Your task to perform on an android device: What's the weather going to be tomorrow? Image 0: 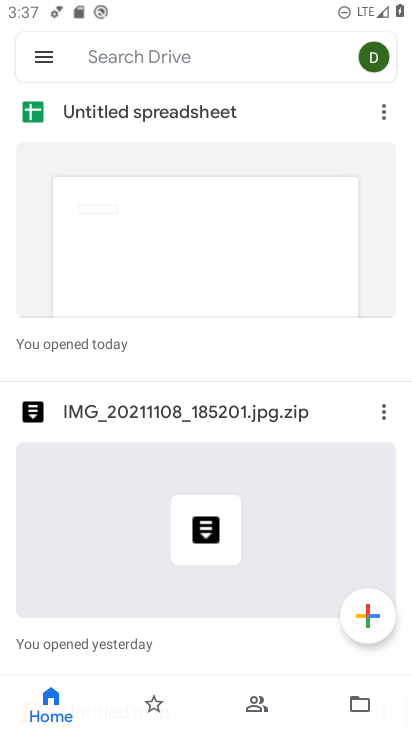
Step 0: press home button
Your task to perform on an android device: What's the weather going to be tomorrow? Image 1: 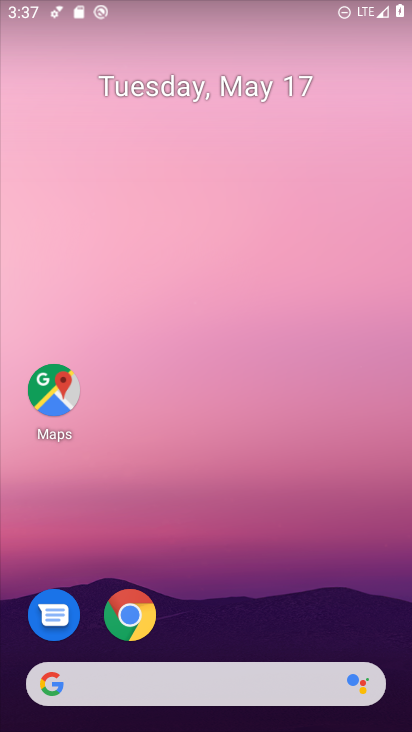
Step 1: drag from (250, 720) to (251, 263)
Your task to perform on an android device: What's the weather going to be tomorrow? Image 2: 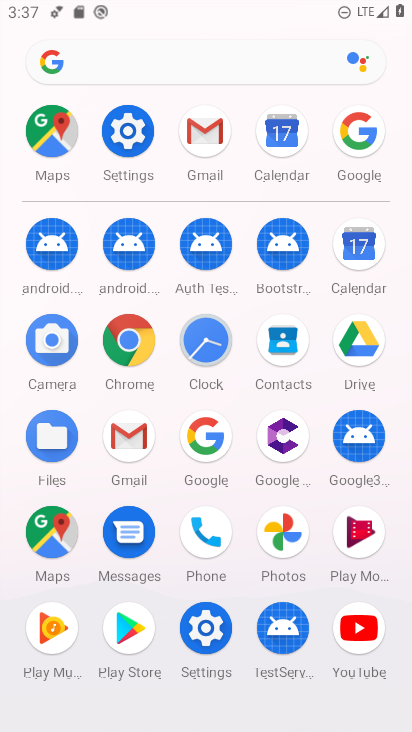
Step 2: click (199, 433)
Your task to perform on an android device: What's the weather going to be tomorrow? Image 3: 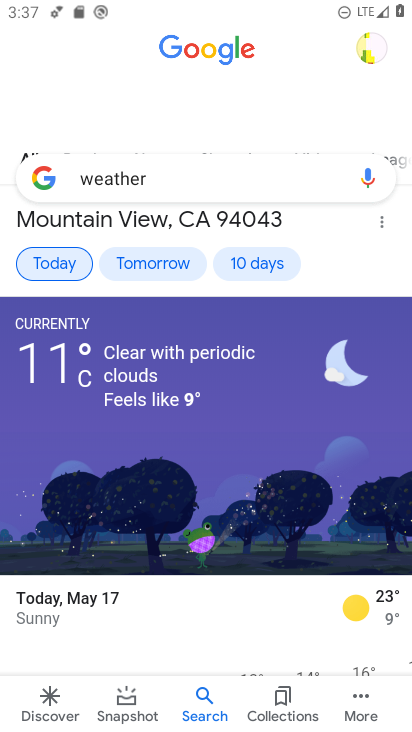
Step 3: click (146, 263)
Your task to perform on an android device: What's the weather going to be tomorrow? Image 4: 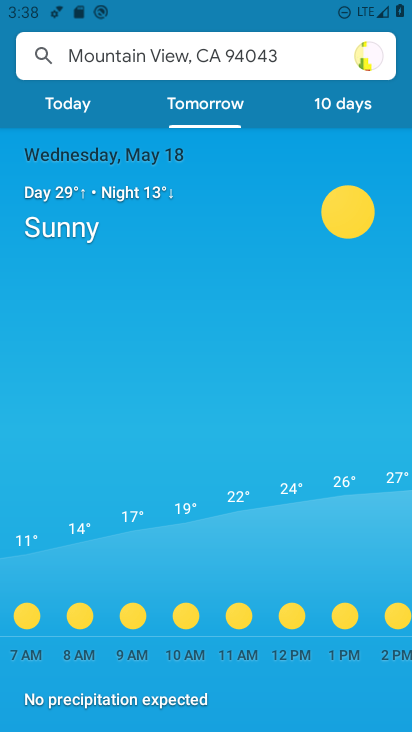
Step 4: task complete